Your task to perform on an android device: Go to Yahoo.com Image 0: 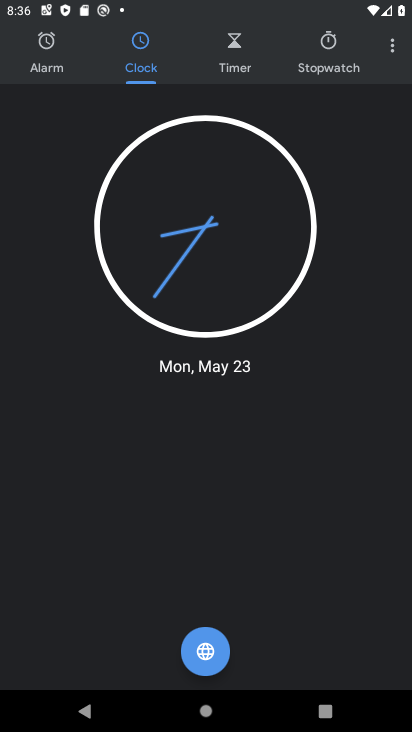
Step 0: press home button
Your task to perform on an android device: Go to Yahoo.com Image 1: 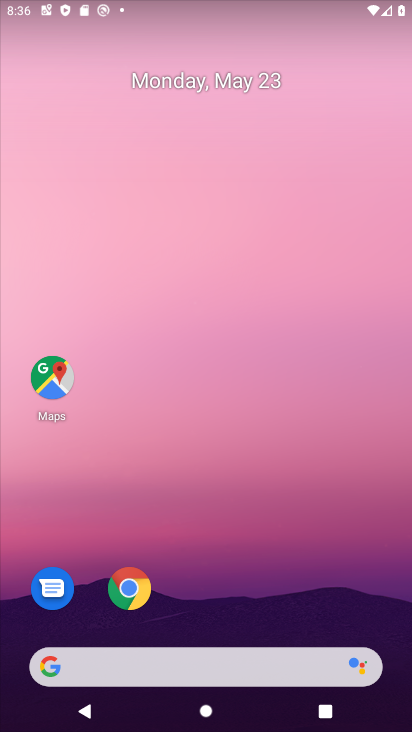
Step 1: click (140, 590)
Your task to perform on an android device: Go to Yahoo.com Image 2: 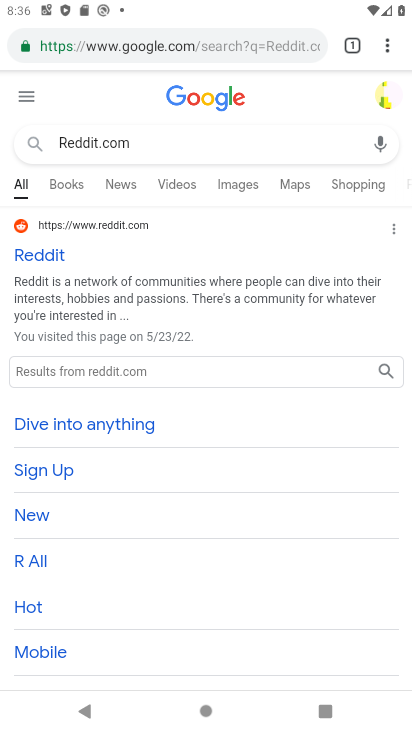
Step 2: click (314, 36)
Your task to perform on an android device: Go to Yahoo.com Image 3: 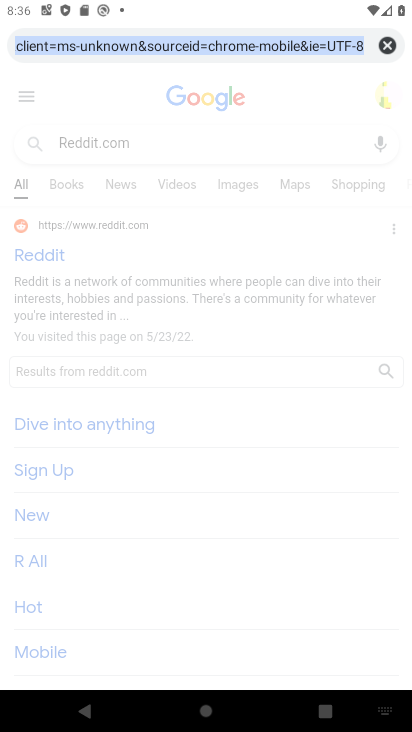
Step 3: click (381, 45)
Your task to perform on an android device: Go to Yahoo.com Image 4: 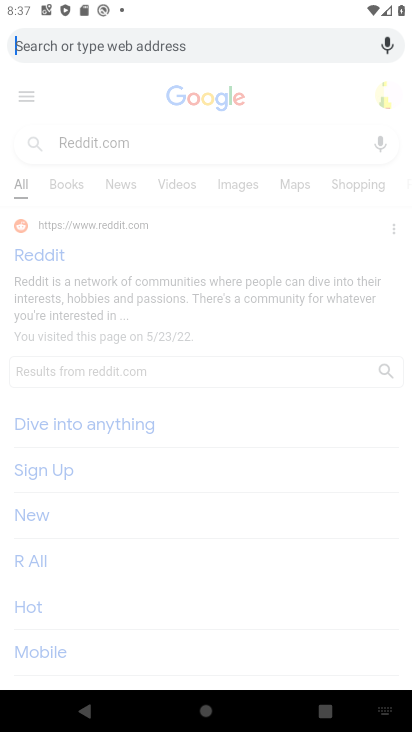
Step 4: type "Yahoo.com"
Your task to perform on an android device: Go to Yahoo.com Image 5: 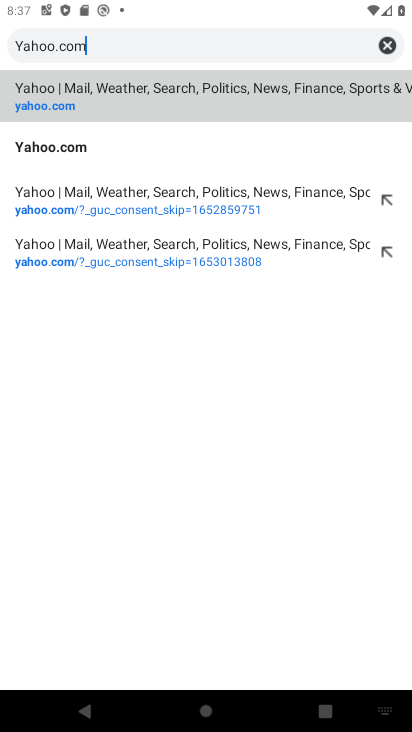
Step 5: click (84, 148)
Your task to perform on an android device: Go to Yahoo.com Image 6: 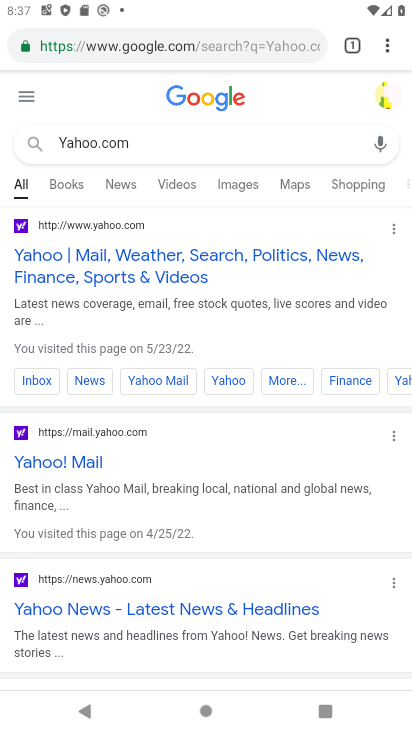
Step 6: task complete